Your task to perform on an android device: set an alarm Image 0: 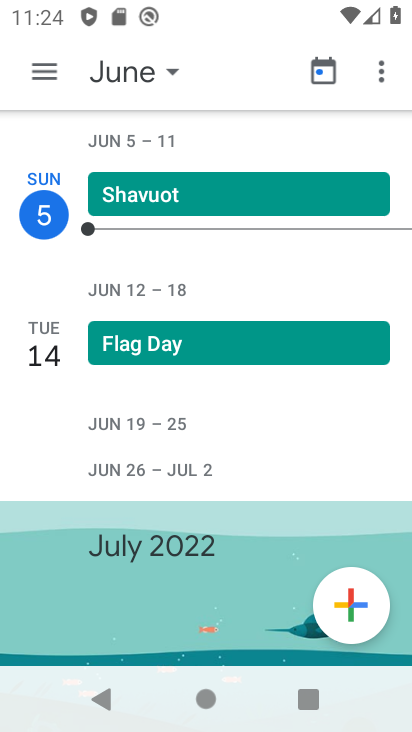
Step 0: press home button
Your task to perform on an android device: set an alarm Image 1: 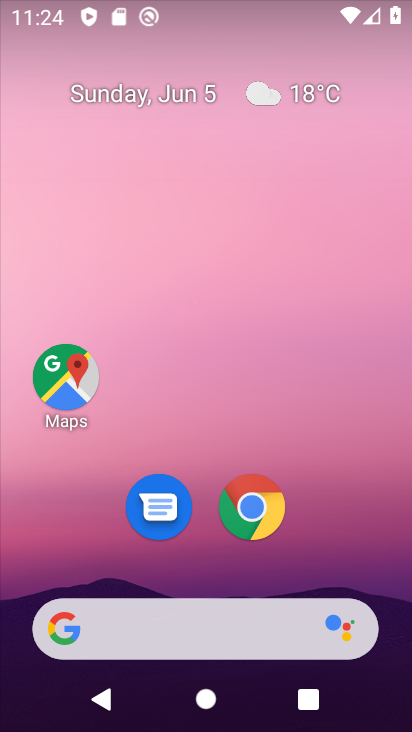
Step 1: drag from (238, 705) to (239, 80)
Your task to perform on an android device: set an alarm Image 2: 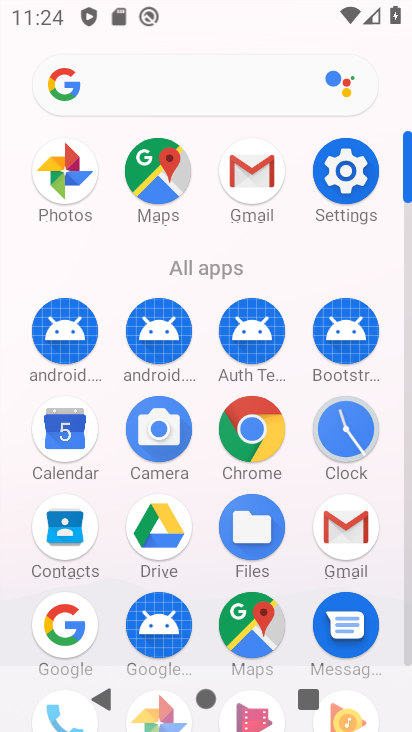
Step 2: click (358, 422)
Your task to perform on an android device: set an alarm Image 3: 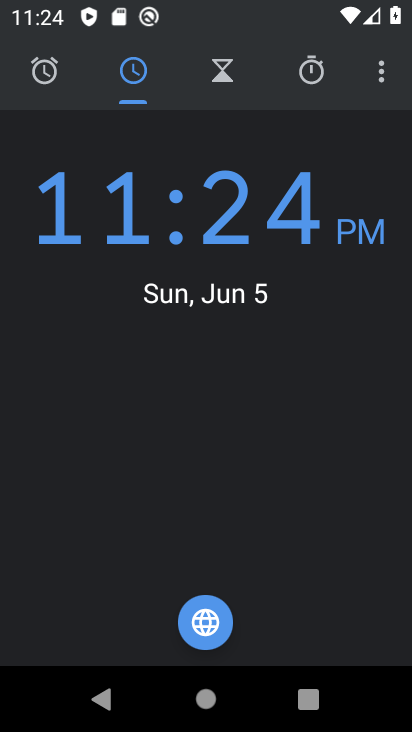
Step 3: click (49, 72)
Your task to perform on an android device: set an alarm Image 4: 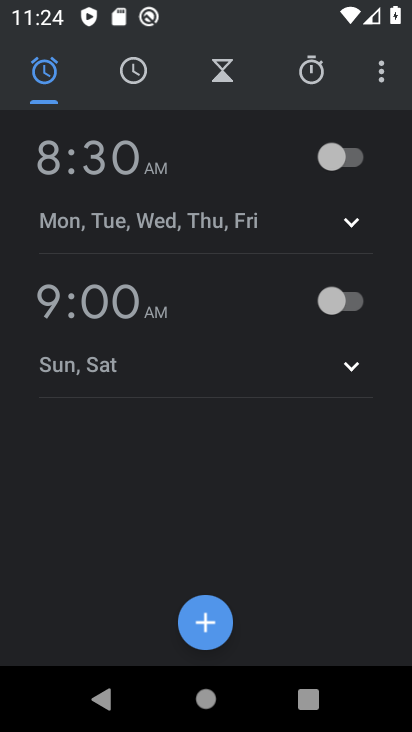
Step 4: click (205, 623)
Your task to perform on an android device: set an alarm Image 5: 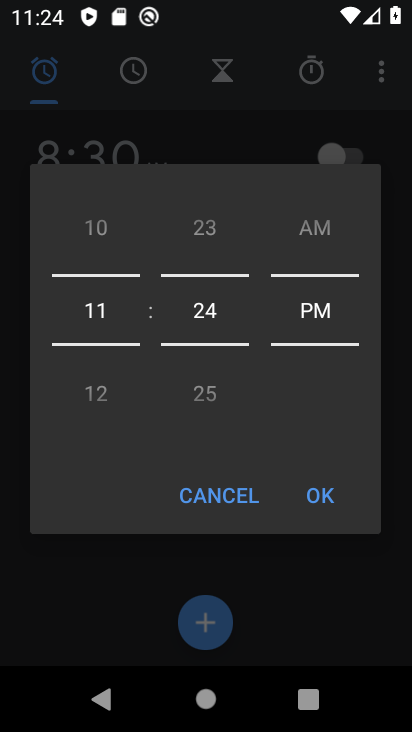
Step 5: click (201, 390)
Your task to perform on an android device: set an alarm Image 6: 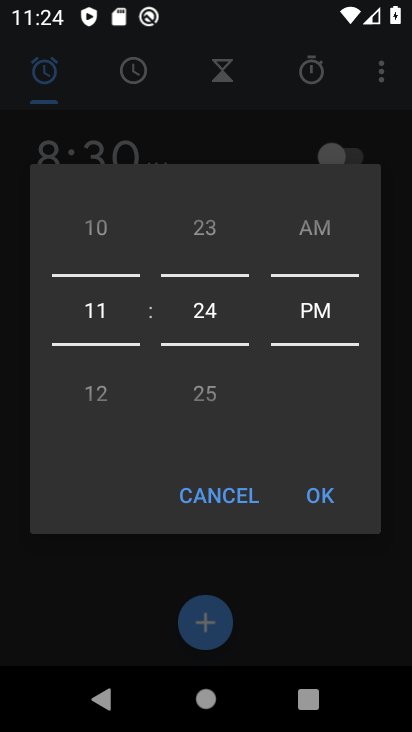
Step 6: drag from (98, 229) to (99, 429)
Your task to perform on an android device: set an alarm Image 7: 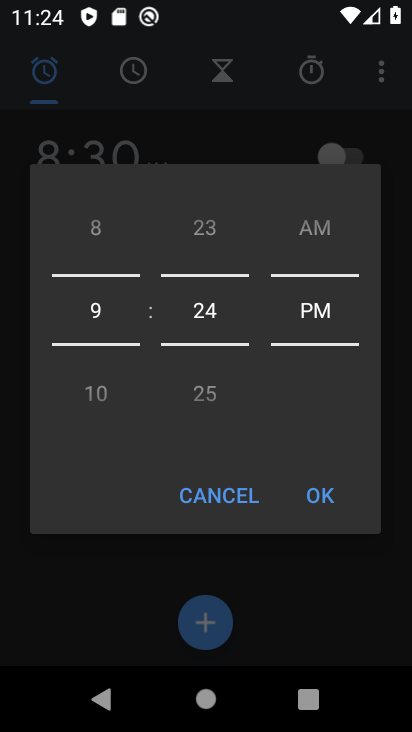
Step 7: drag from (201, 227) to (190, 439)
Your task to perform on an android device: set an alarm Image 8: 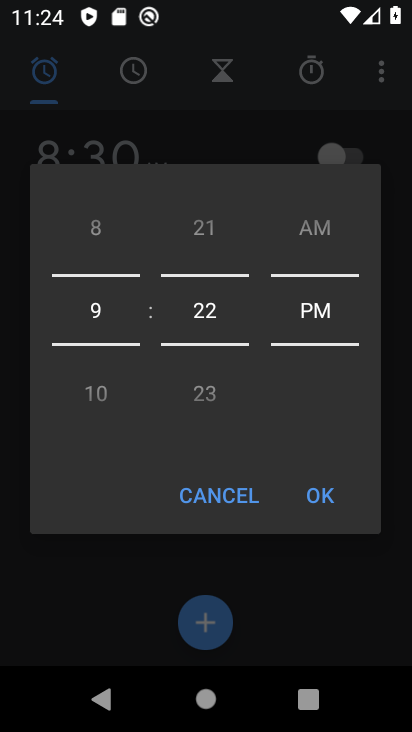
Step 8: click (304, 223)
Your task to perform on an android device: set an alarm Image 9: 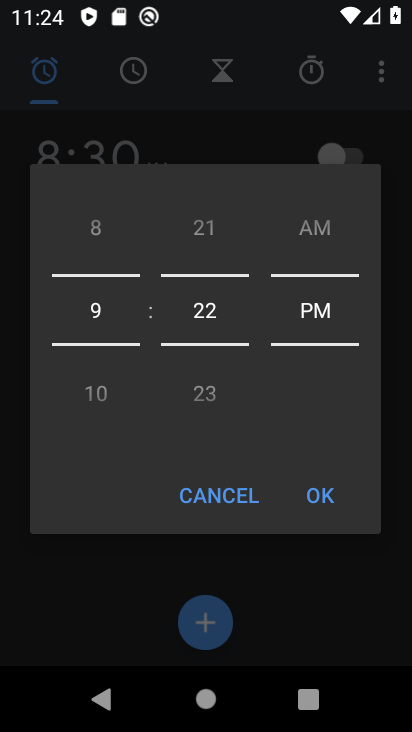
Step 9: click (315, 229)
Your task to perform on an android device: set an alarm Image 10: 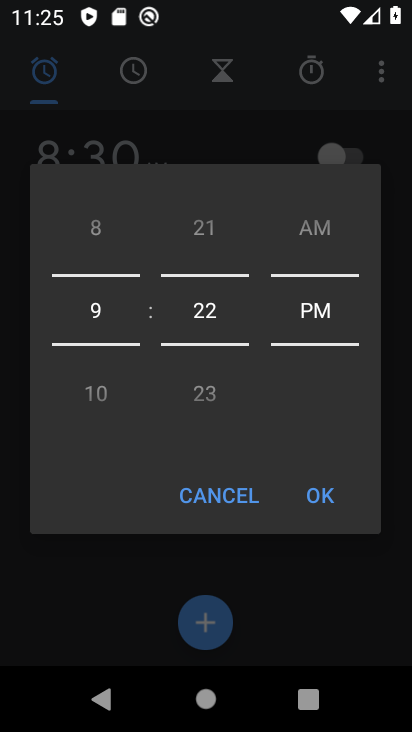
Step 10: drag from (319, 229) to (333, 381)
Your task to perform on an android device: set an alarm Image 11: 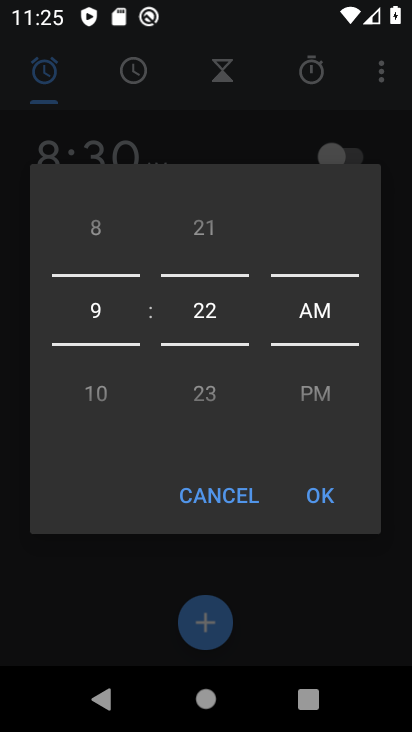
Step 11: click (326, 492)
Your task to perform on an android device: set an alarm Image 12: 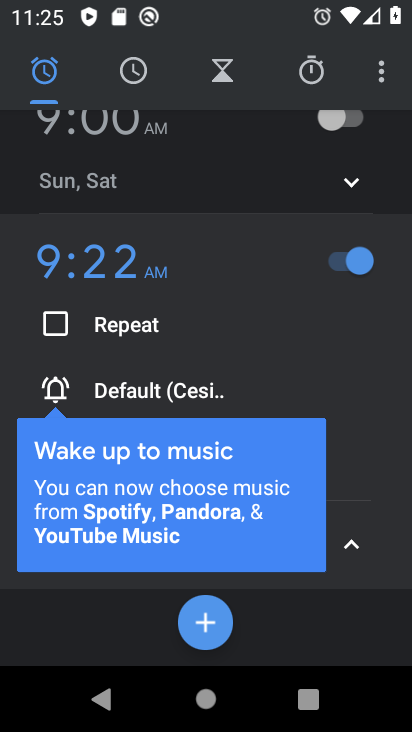
Step 12: task complete